Your task to perform on an android device: Open Google Chrome and click the shortcut for Amazon.com Image 0: 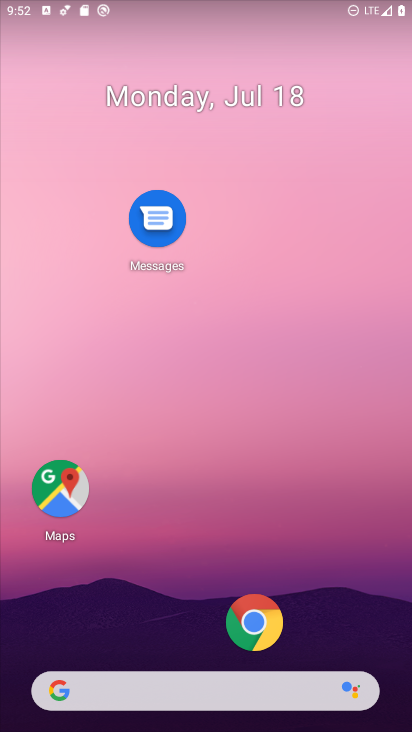
Step 0: drag from (193, 677) to (249, 166)
Your task to perform on an android device: Open Google Chrome and click the shortcut for Amazon.com Image 1: 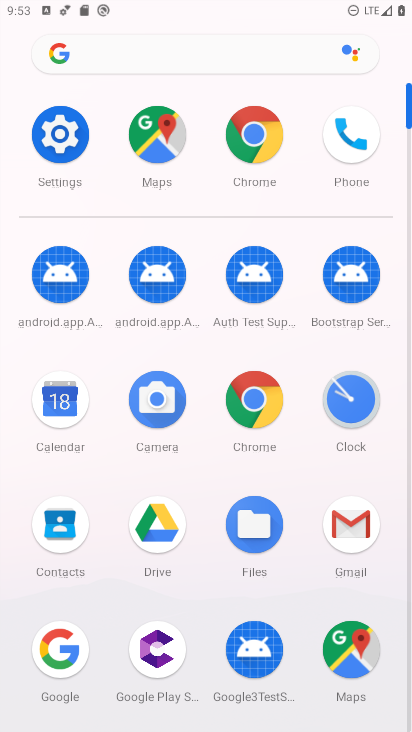
Step 1: click (271, 406)
Your task to perform on an android device: Open Google Chrome and click the shortcut for Amazon.com Image 2: 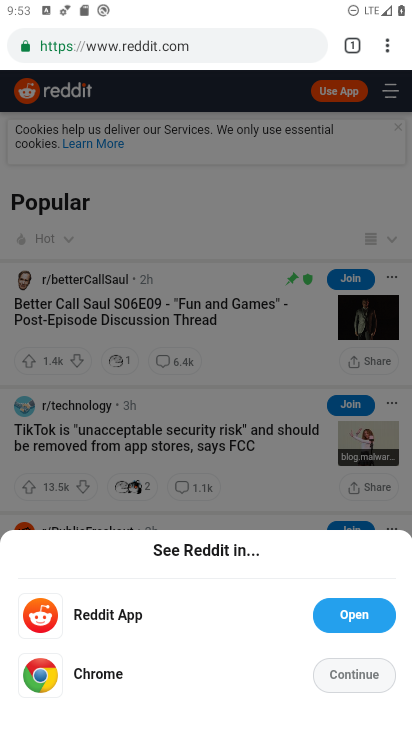
Step 2: drag from (345, 40) to (351, 139)
Your task to perform on an android device: Open Google Chrome and click the shortcut for Amazon.com Image 3: 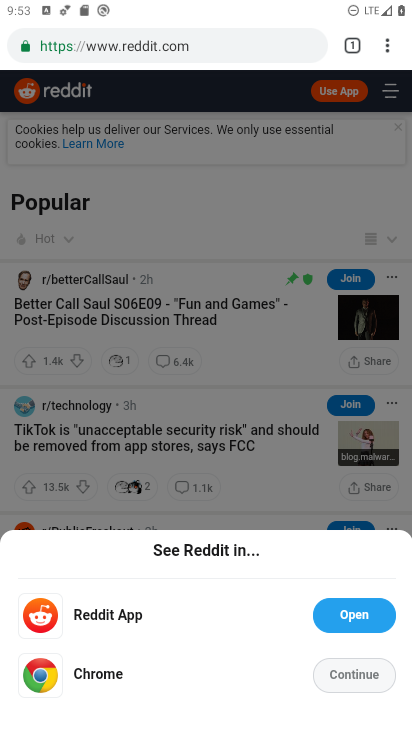
Step 3: drag from (359, 48) to (348, 154)
Your task to perform on an android device: Open Google Chrome and click the shortcut for Amazon.com Image 4: 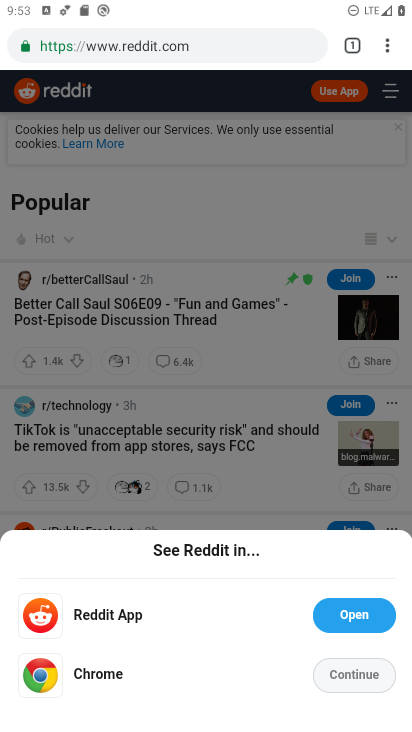
Step 4: drag from (353, 49) to (358, 239)
Your task to perform on an android device: Open Google Chrome and click the shortcut for Amazon.com Image 5: 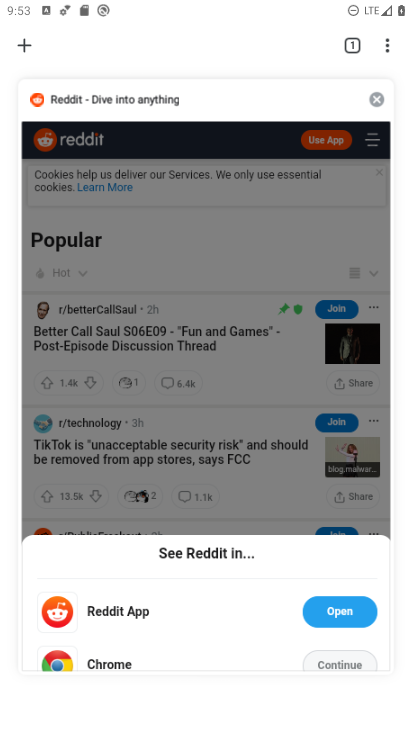
Step 5: click (29, 48)
Your task to perform on an android device: Open Google Chrome and click the shortcut for Amazon.com Image 6: 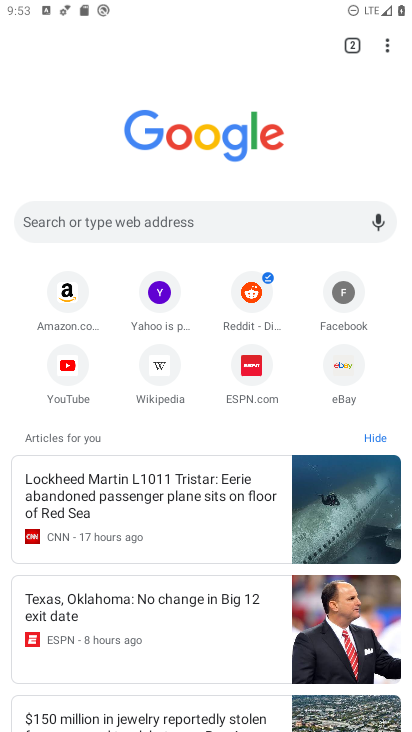
Step 6: click (71, 309)
Your task to perform on an android device: Open Google Chrome and click the shortcut for Amazon.com Image 7: 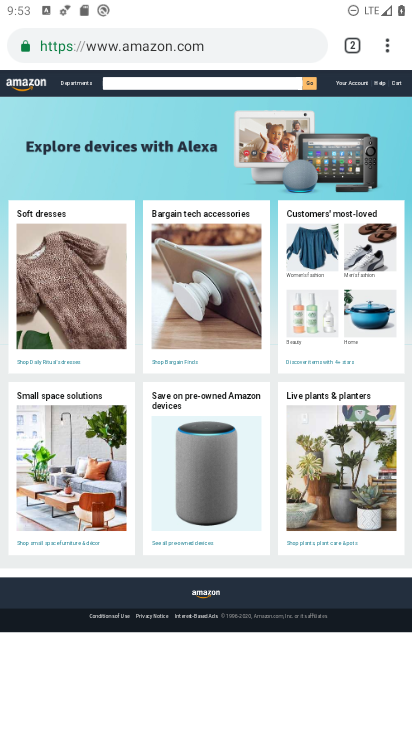
Step 7: task complete